Your task to perform on an android device: open chrome and create a bookmark for the current page Image 0: 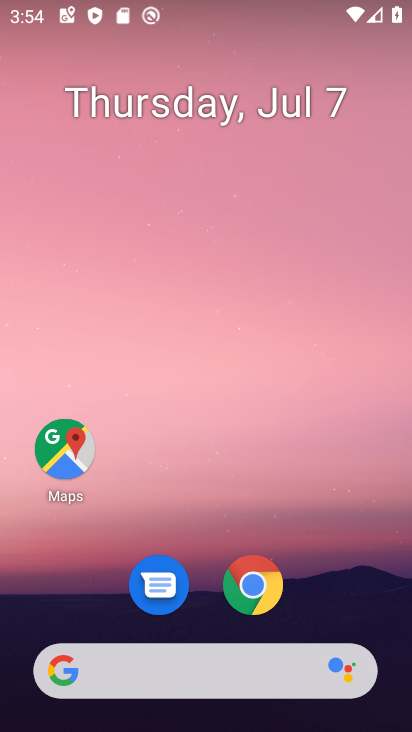
Step 0: click (248, 580)
Your task to perform on an android device: open chrome and create a bookmark for the current page Image 1: 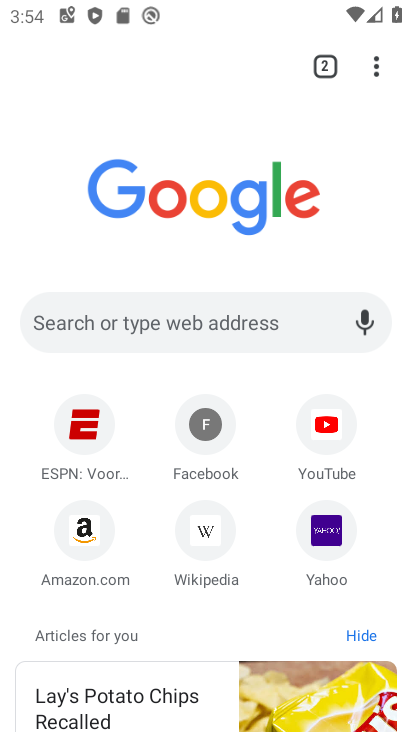
Step 1: click (372, 71)
Your task to perform on an android device: open chrome and create a bookmark for the current page Image 2: 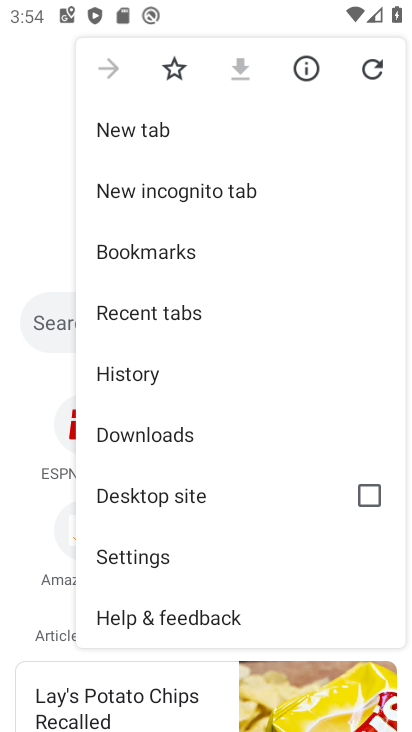
Step 2: click (172, 63)
Your task to perform on an android device: open chrome and create a bookmark for the current page Image 3: 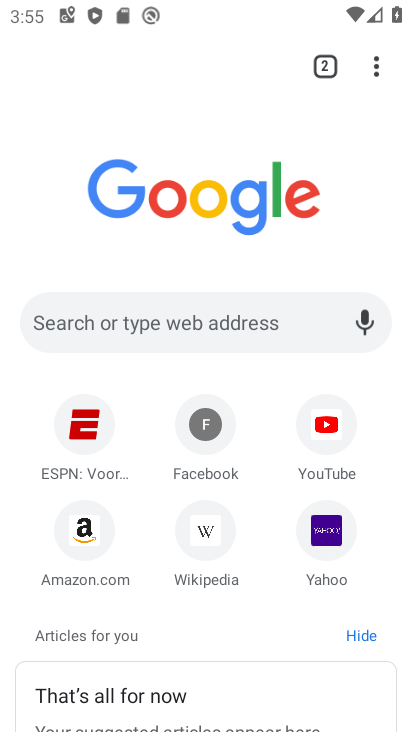
Step 3: click (375, 63)
Your task to perform on an android device: open chrome and create a bookmark for the current page Image 4: 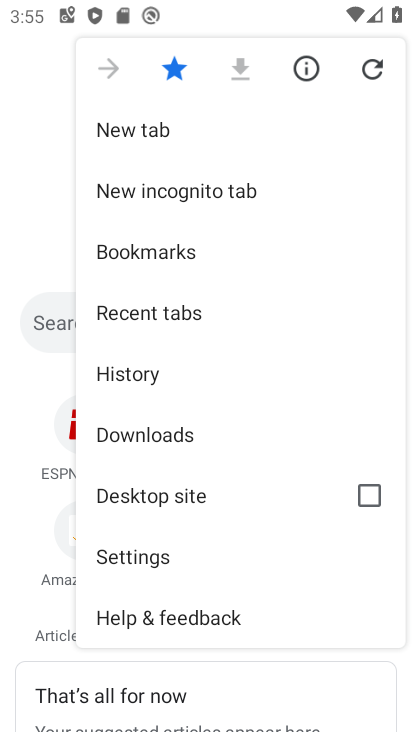
Step 4: task complete